Your task to perform on an android device: Open Google Chrome and open the bookmarks view Image 0: 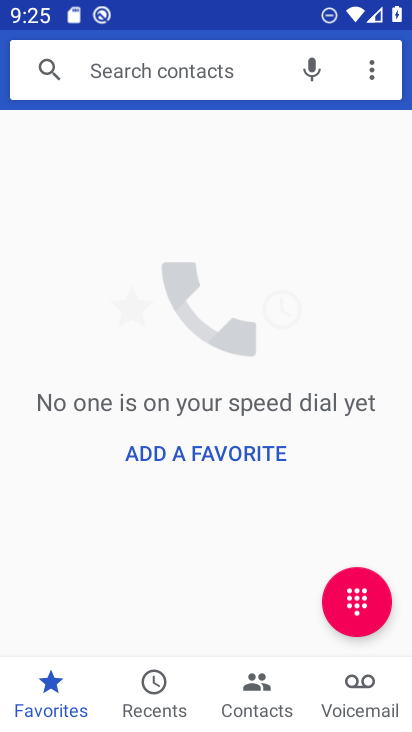
Step 0: press home button
Your task to perform on an android device: Open Google Chrome and open the bookmarks view Image 1: 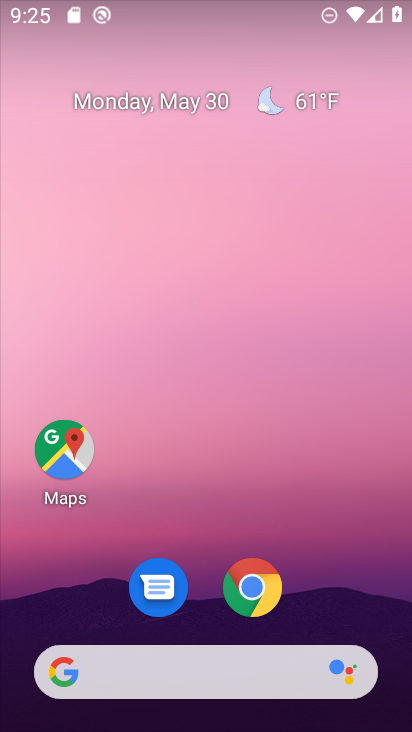
Step 1: click (249, 575)
Your task to perform on an android device: Open Google Chrome and open the bookmarks view Image 2: 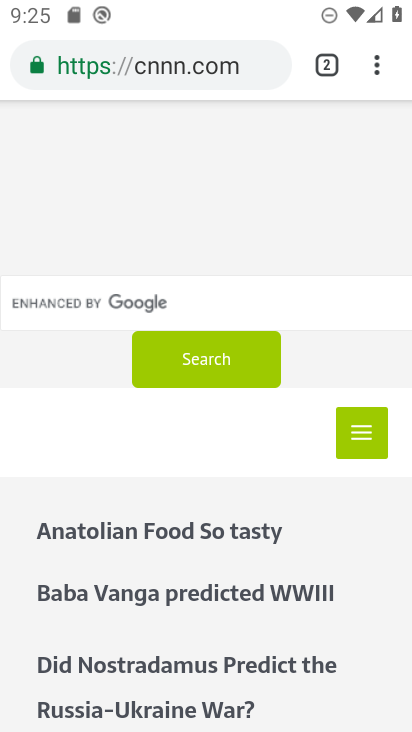
Step 2: task complete